Your task to perform on an android device: turn on bluetooth scan Image 0: 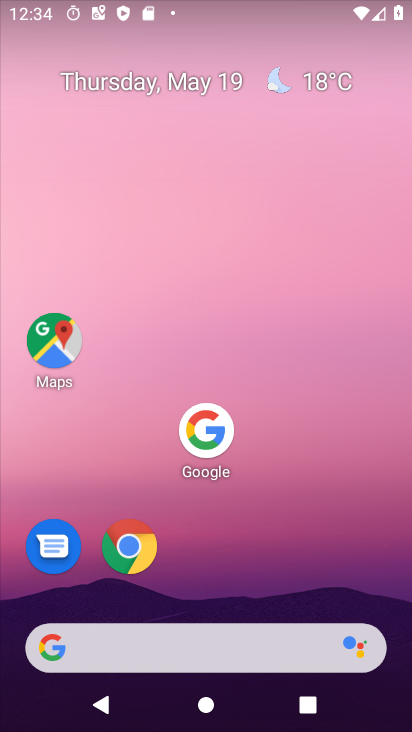
Step 0: drag from (280, 543) to (264, 44)
Your task to perform on an android device: turn on bluetooth scan Image 1: 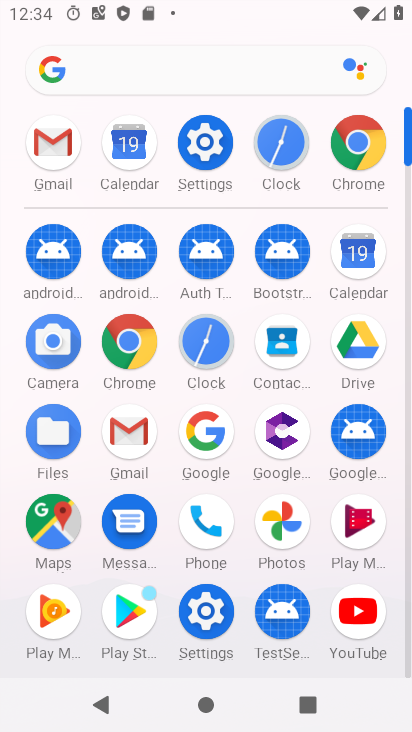
Step 1: click (200, 136)
Your task to perform on an android device: turn on bluetooth scan Image 2: 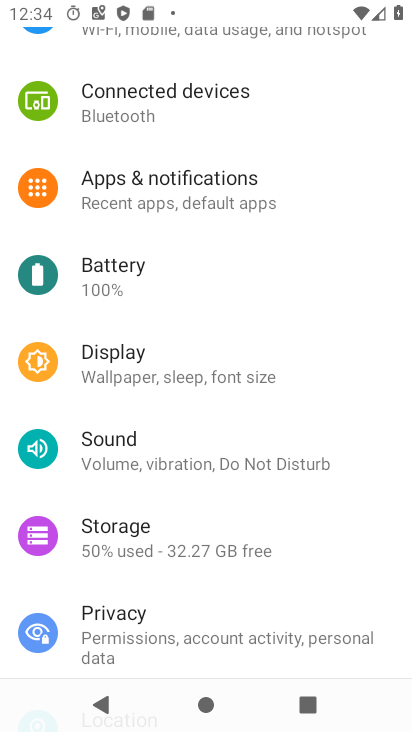
Step 2: drag from (176, 155) to (256, 368)
Your task to perform on an android device: turn on bluetooth scan Image 3: 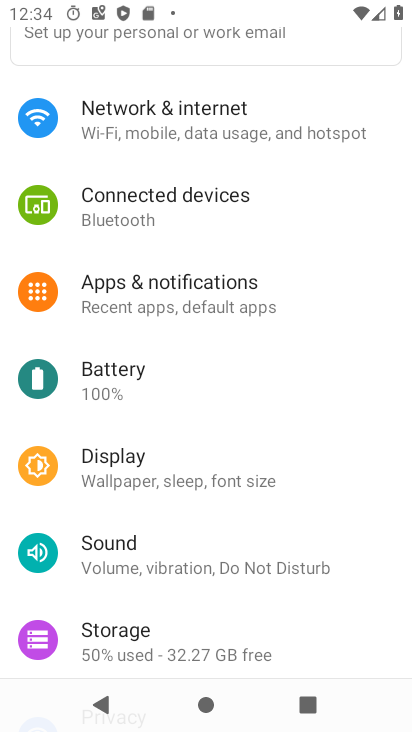
Step 3: drag from (228, 545) to (242, 126)
Your task to perform on an android device: turn on bluetooth scan Image 4: 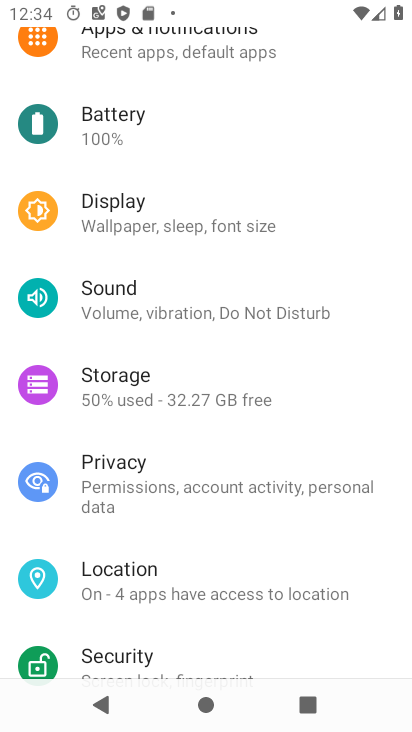
Step 4: click (168, 579)
Your task to perform on an android device: turn on bluetooth scan Image 5: 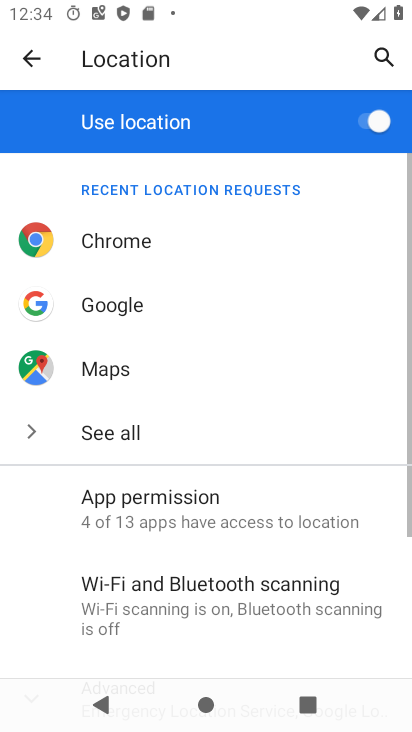
Step 5: click (202, 587)
Your task to perform on an android device: turn on bluetooth scan Image 6: 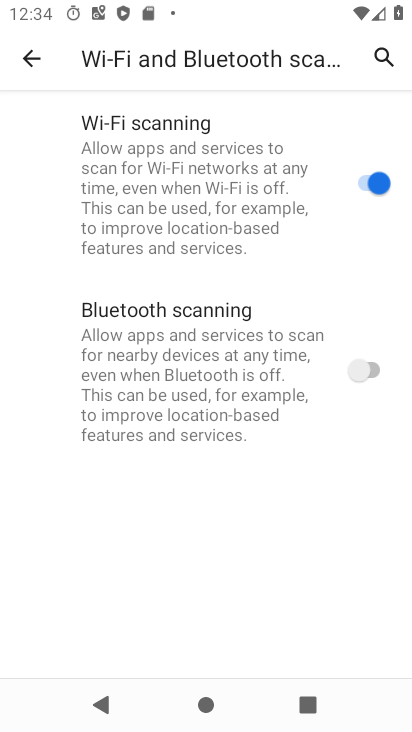
Step 6: click (370, 362)
Your task to perform on an android device: turn on bluetooth scan Image 7: 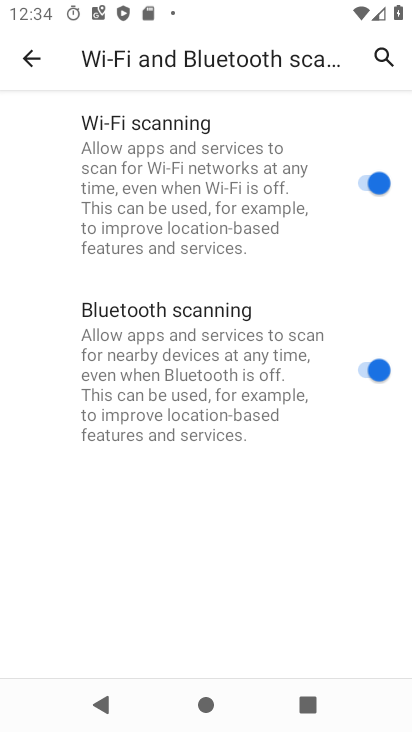
Step 7: task complete